Your task to perform on an android device: Open my contact list Image 0: 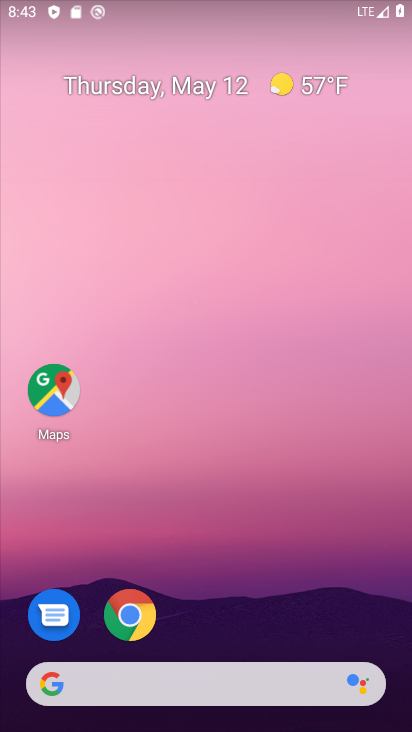
Step 0: drag from (310, 570) to (236, 23)
Your task to perform on an android device: Open my contact list Image 1: 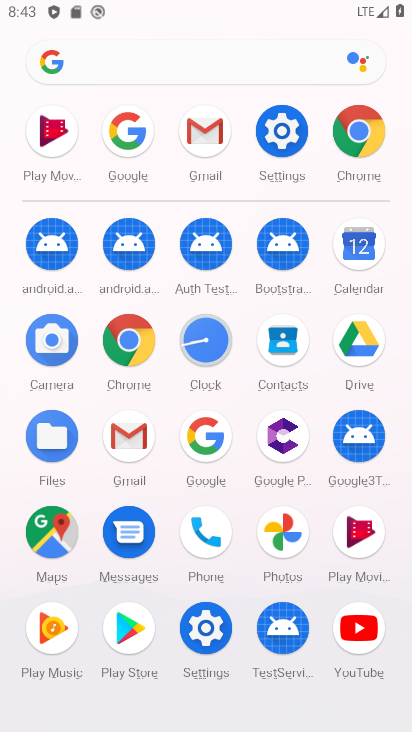
Step 1: click (283, 339)
Your task to perform on an android device: Open my contact list Image 2: 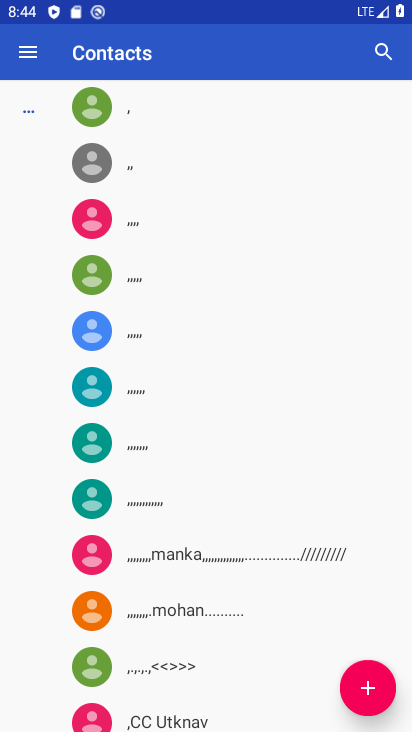
Step 2: task complete